Your task to perform on an android device: see creations saved in the google photos Image 0: 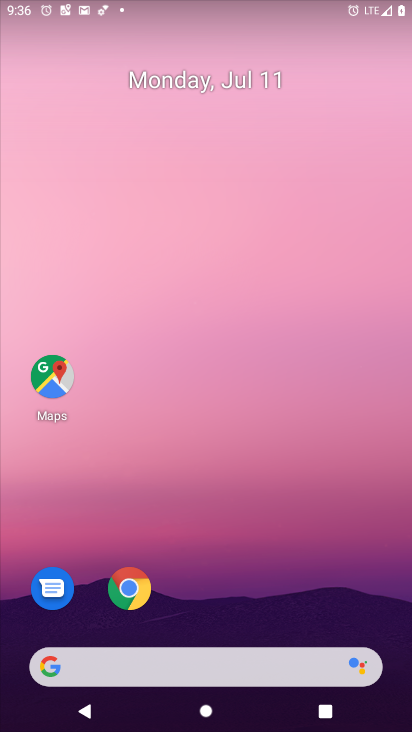
Step 0: drag from (200, 662) to (304, 68)
Your task to perform on an android device: see creations saved in the google photos Image 1: 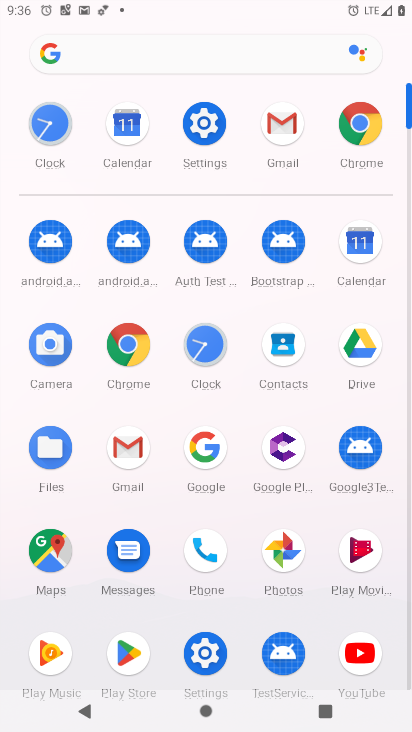
Step 1: click (282, 551)
Your task to perform on an android device: see creations saved in the google photos Image 2: 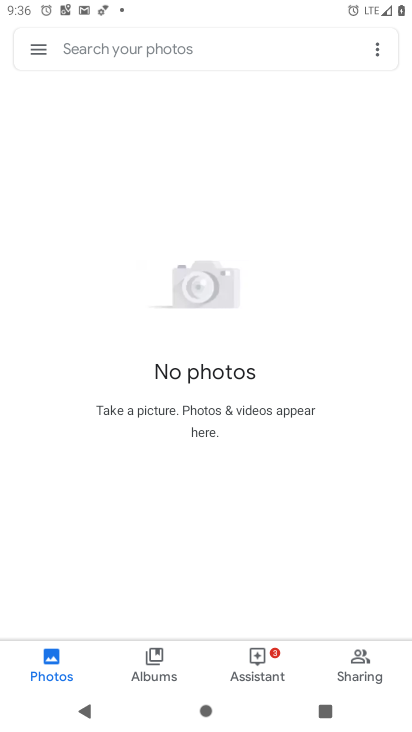
Step 2: click (164, 662)
Your task to perform on an android device: see creations saved in the google photos Image 3: 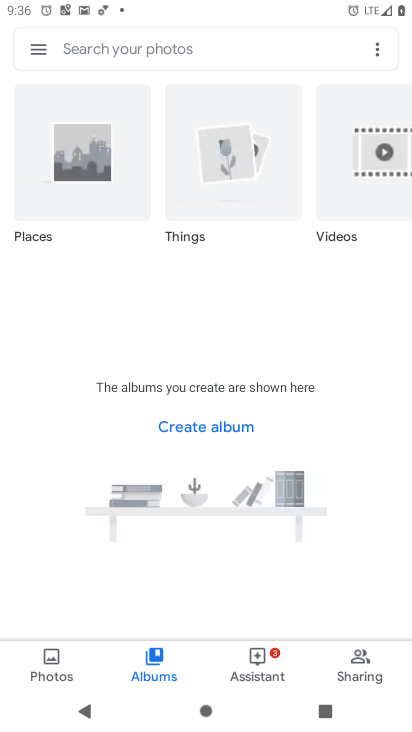
Step 3: click (130, 50)
Your task to perform on an android device: see creations saved in the google photos Image 4: 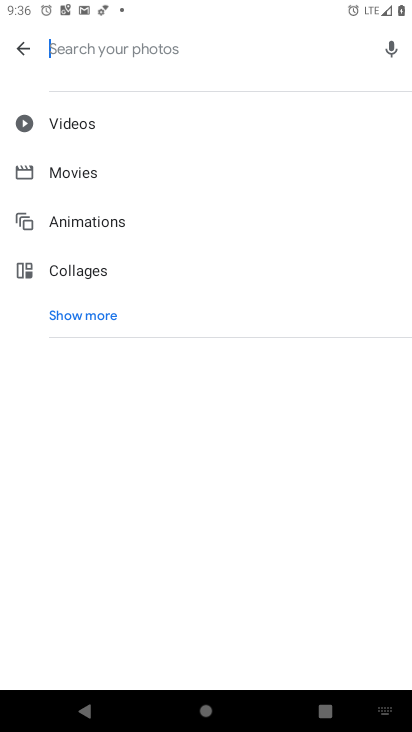
Step 4: click (92, 319)
Your task to perform on an android device: see creations saved in the google photos Image 5: 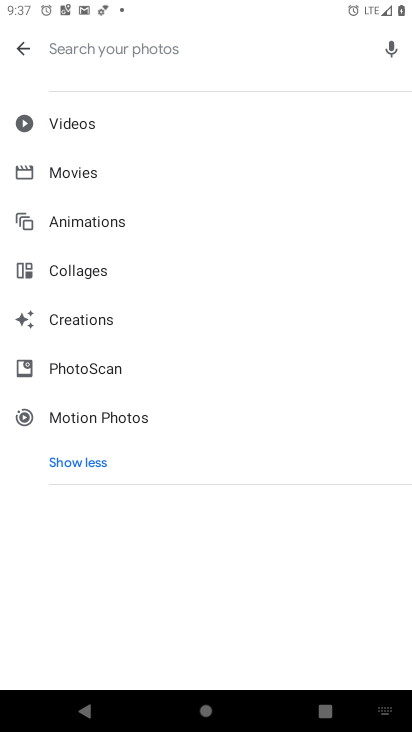
Step 5: click (99, 322)
Your task to perform on an android device: see creations saved in the google photos Image 6: 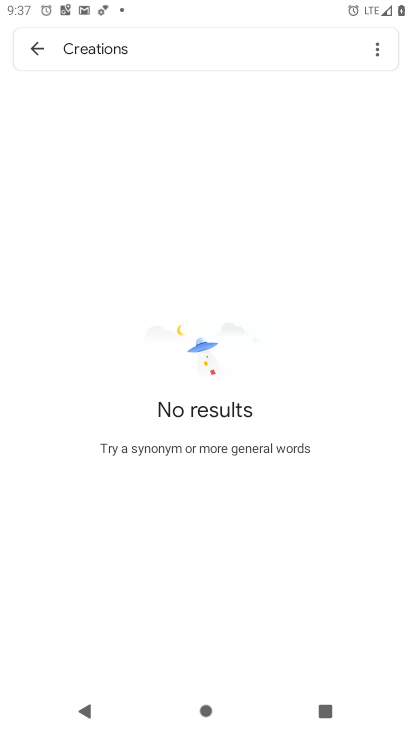
Step 6: task complete